Your task to perform on an android device: Open Maps and search for coffee Image 0: 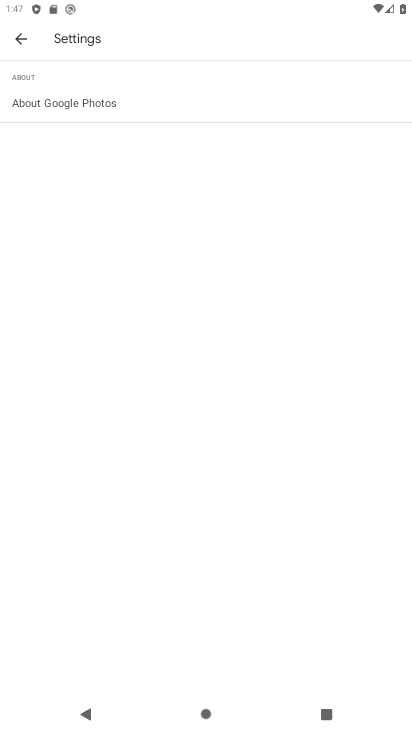
Step 0: press home button
Your task to perform on an android device: Open Maps and search for coffee Image 1: 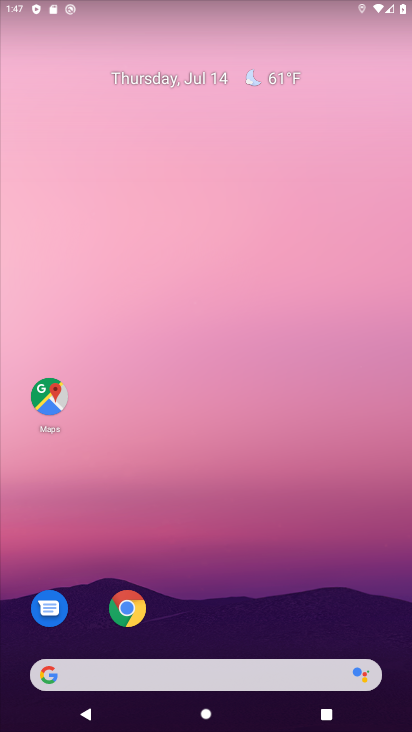
Step 1: click (44, 396)
Your task to perform on an android device: Open Maps and search for coffee Image 2: 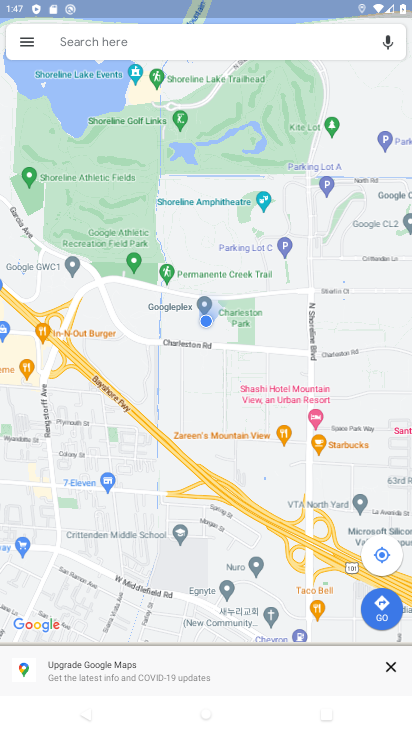
Step 2: click (211, 37)
Your task to perform on an android device: Open Maps and search for coffee Image 3: 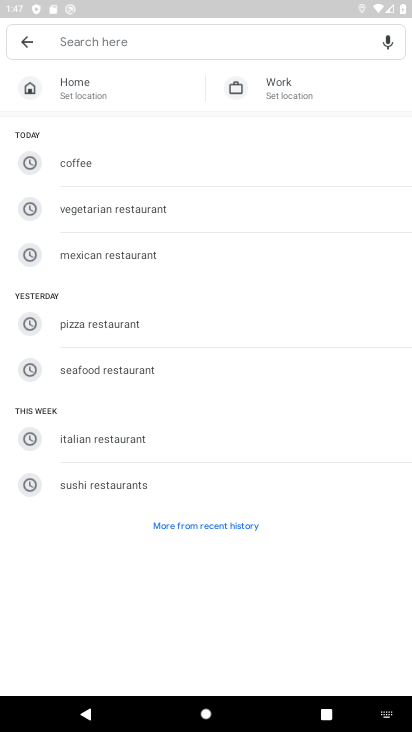
Step 3: click (91, 160)
Your task to perform on an android device: Open Maps and search for coffee Image 4: 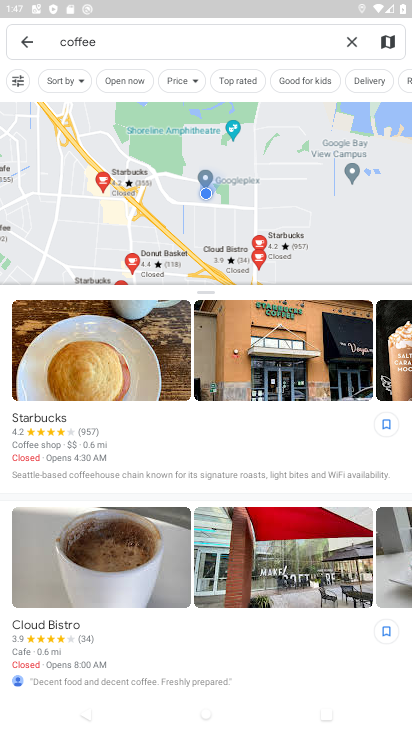
Step 4: task complete